Your task to perform on an android device: open wifi settings Image 0: 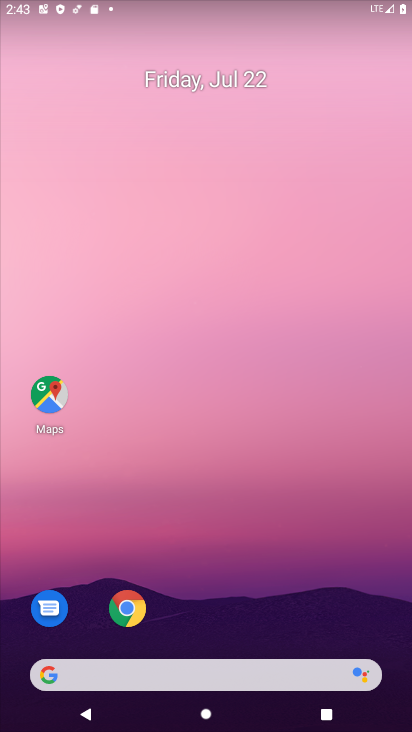
Step 0: drag from (199, 8) to (354, 497)
Your task to perform on an android device: open wifi settings Image 1: 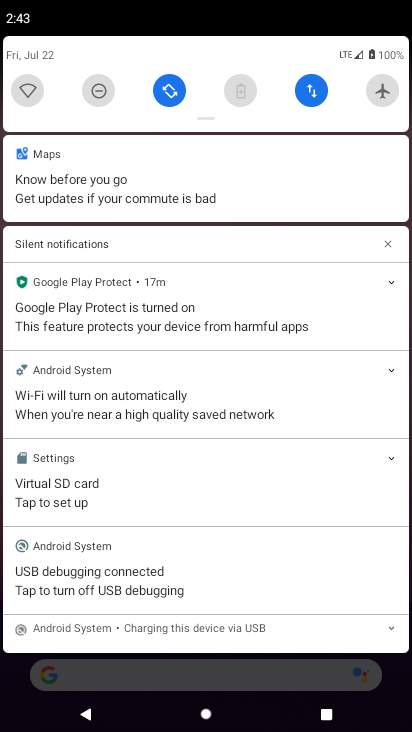
Step 1: click (22, 85)
Your task to perform on an android device: open wifi settings Image 2: 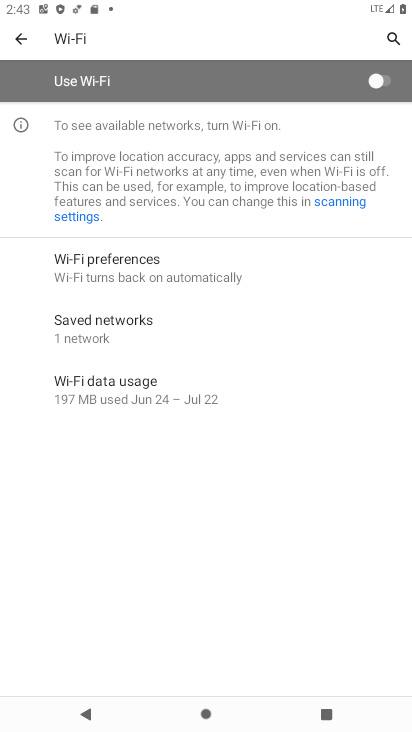
Step 2: task complete